Your task to perform on an android device: turn pop-ups off in chrome Image 0: 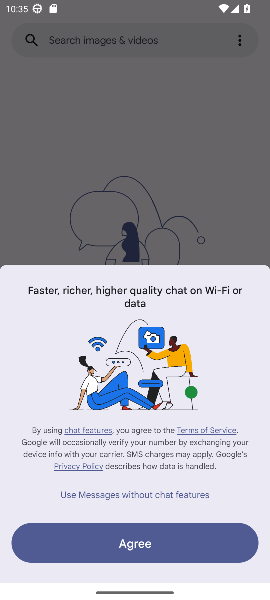
Step 0: press home button
Your task to perform on an android device: turn pop-ups off in chrome Image 1: 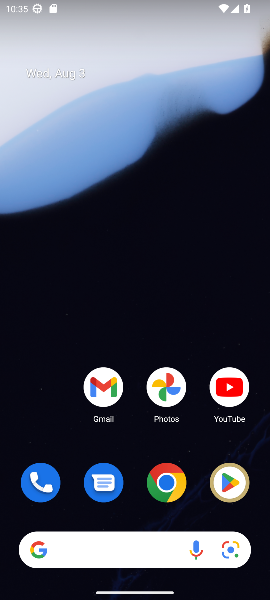
Step 1: drag from (132, 515) to (149, 248)
Your task to perform on an android device: turn pop-ups off in chrome Image 2: 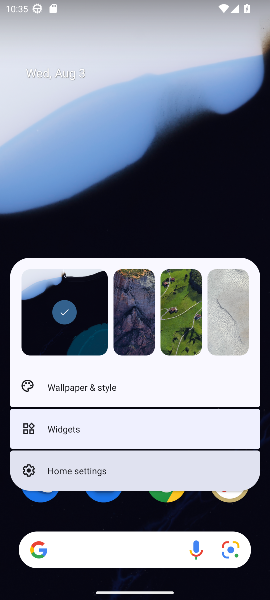
Step 2: click (134, 519)
Your task to perform on an android device: turn pop-ups off in chrome Image 3: 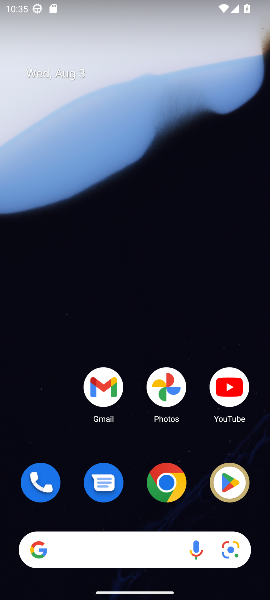
Step 3: click (164, 492)
Your task to perform on an android device: turn pop-ups off in chrome Image 4: 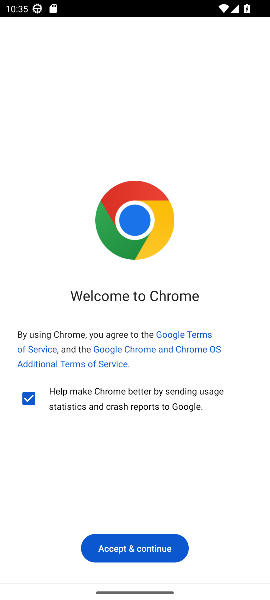
Step 4: click (141, 535)
Your task to perform on an android device: turn pop-ups off in chrome Image 5: 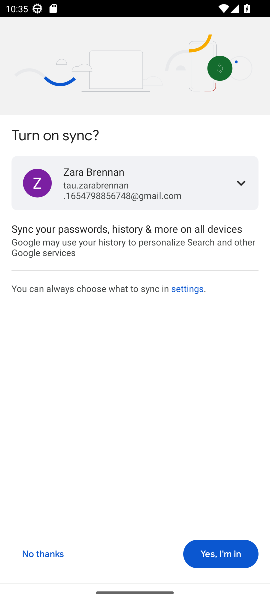
Step 5: click (198, 545)
Your task to perform on an android device: turn pop-ups off in chrome Image 6: 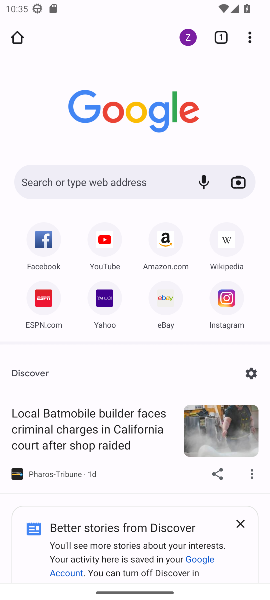
Step 6: click (250, 43)
Your task to perform on an android device: turn pop-ups off in chrome Image 7: 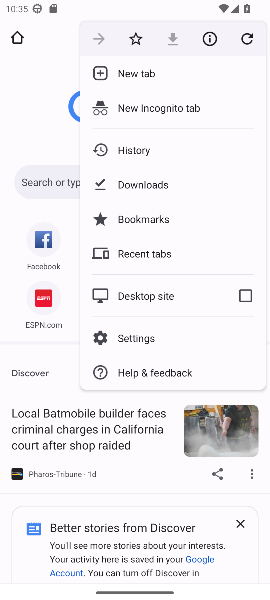
Step 7: click (140, 347)
Your task to perform on an android device: turn pop-ups off in chrome Image 8: 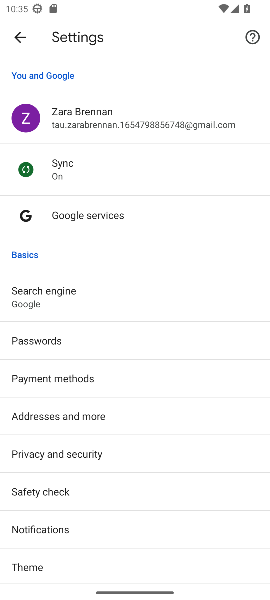
Step 8: task complete